Your task to perform on an android device: turn on notifications settings in the gmail app Image 0: 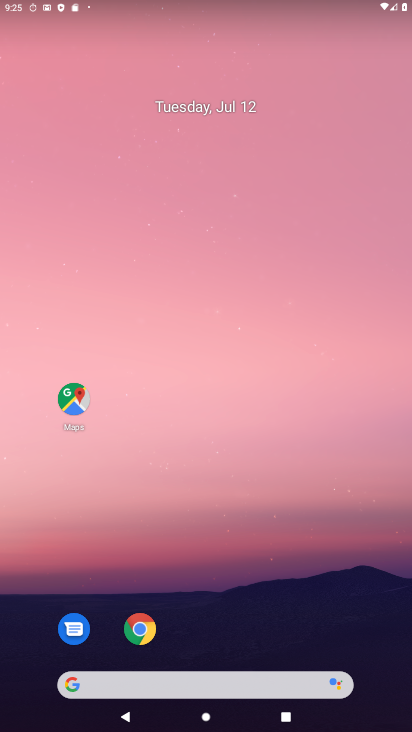
Step 0: drag from (360, 689) to (281, 232)
Your task to perform on an android device: turn on notifications settings in the gmail app Image 1: 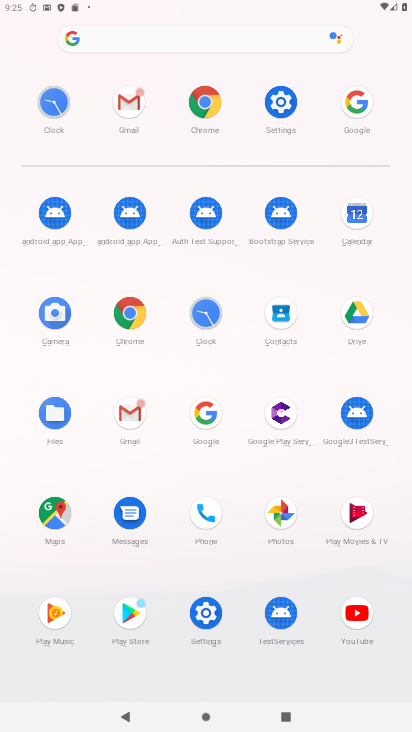
Step 1: click (138, 414)
Your task to perform on an android device: turn on notifications settings in the gmail app Image 2: 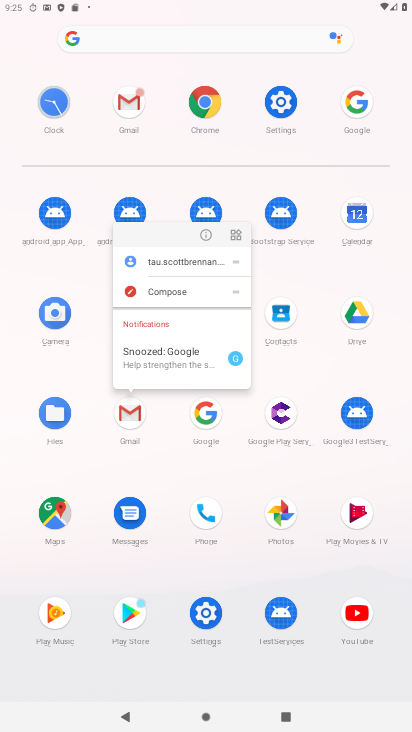
Step 2: click (128, 410)
Your task to perform on an android device: turn on notifications settings in the gmail app Image 3: 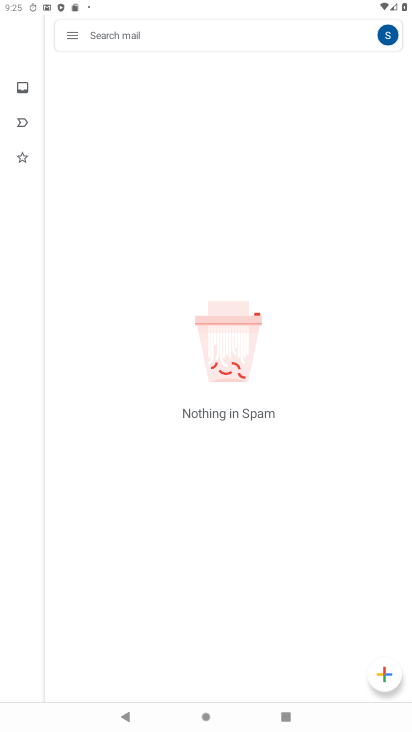
Step 3: click (71, 41)
Your task to perform on an android device: turn on notifications settings in the gmail app Image 4: 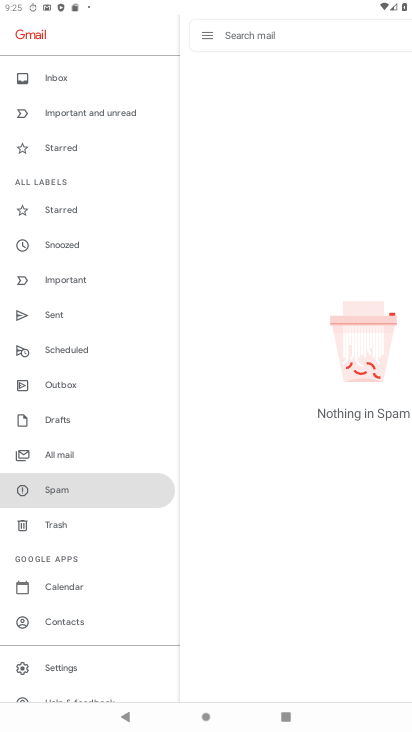
Step 4: click (54, 665)
Your task to perform on an android device: turn on notifications settings in the gmail app Image 5: 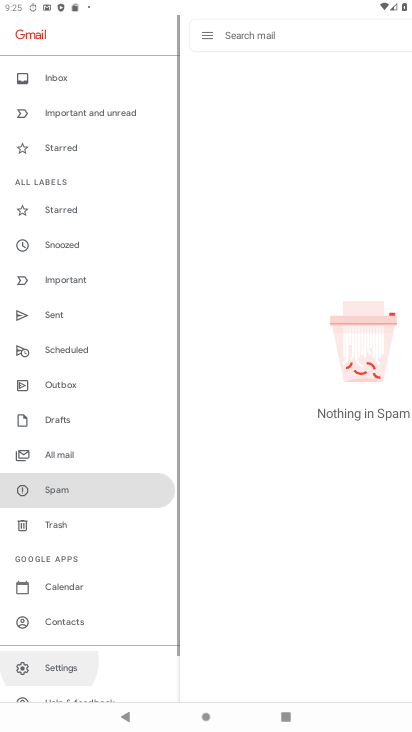
Step 5: click (54, 665)
Your task to perform on an android device: turn on notifications settings in the gmail app Image 6: 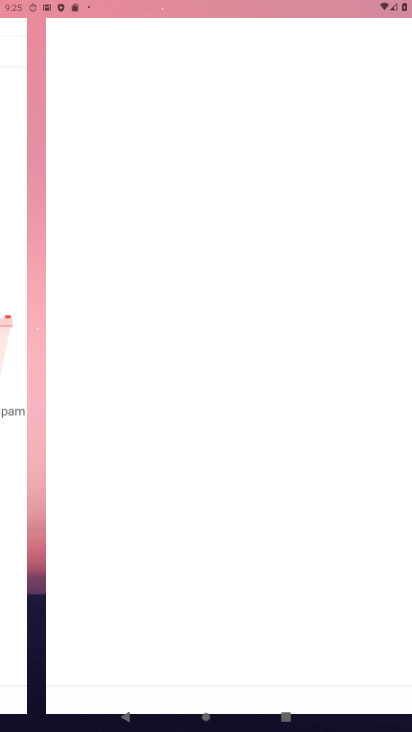
Step 6: click (55, 665)
Your task to perform on an android device: turn on notifications settings in the gmail app Image 7: 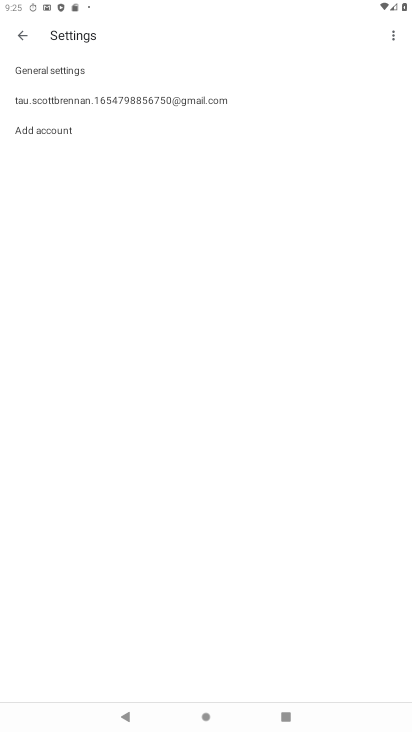
Step 7: click (101, 103)
Your task to perform on an android device: turn on notifications settings in the gmail app Image 8: 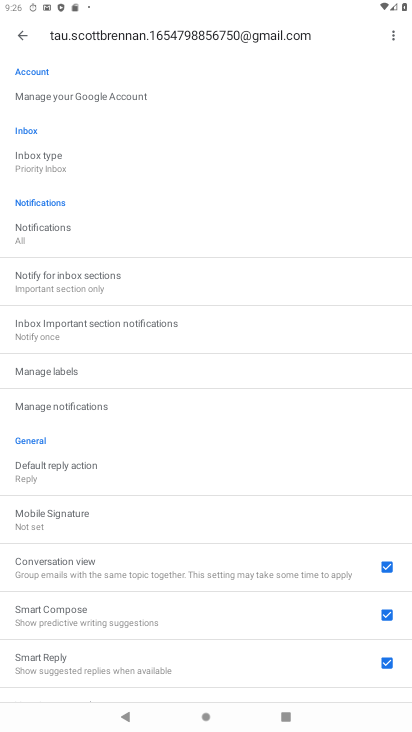
Step 8: click (41, 230)
Your task to perform on an android device: turn on notifications settings in the gmail app Image 9: 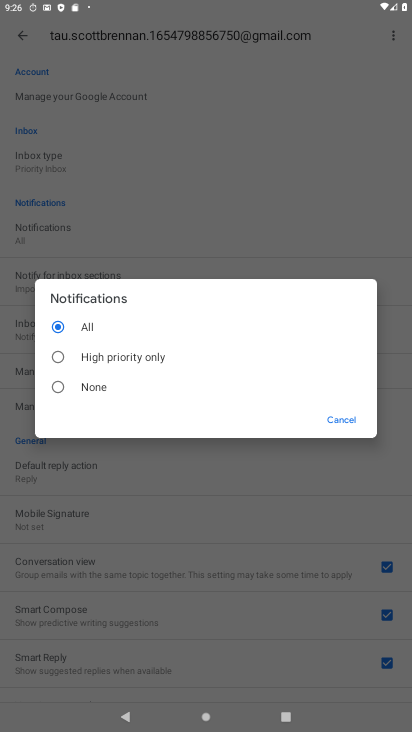
Step 9: task complete